Your task to perform on an android device: open device folders in google photos Image 0: 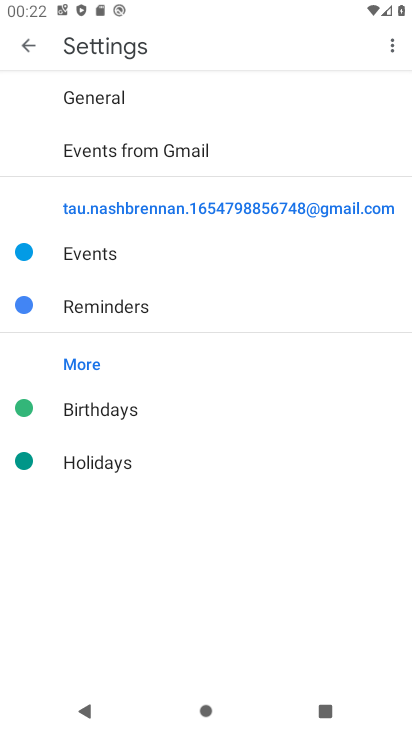
Step 0: press back button
Your task to perform on an android device: open device folders in google photos Image 1: 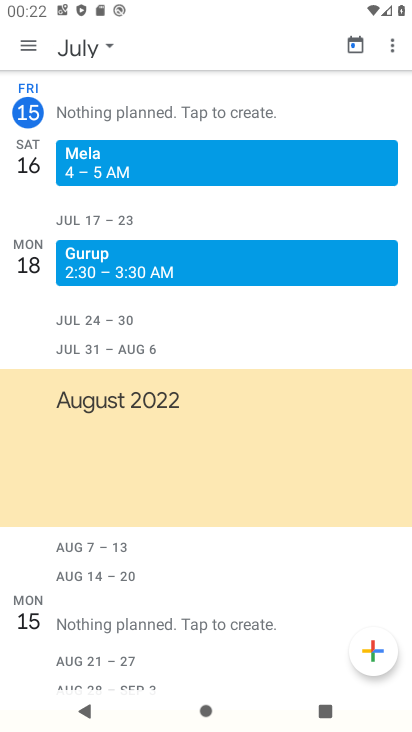
Step 1: press back button
Your task to perform on an android device: open device folders in google photos Image 2: 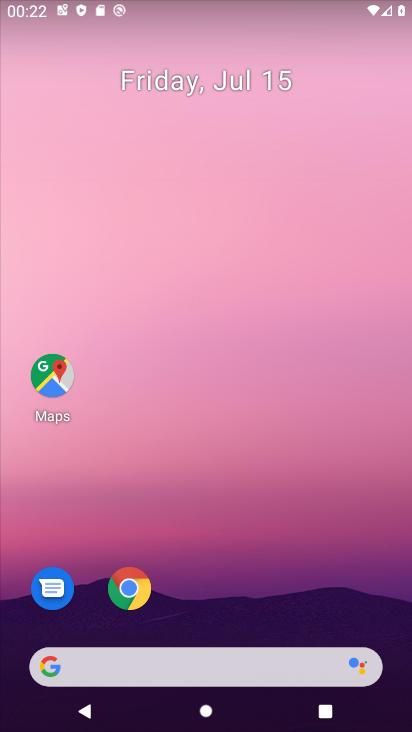
Step 2: drag from (198, 562) to (254, 28)
Your task to perform on an android device: open device folders in google photos Image 3: 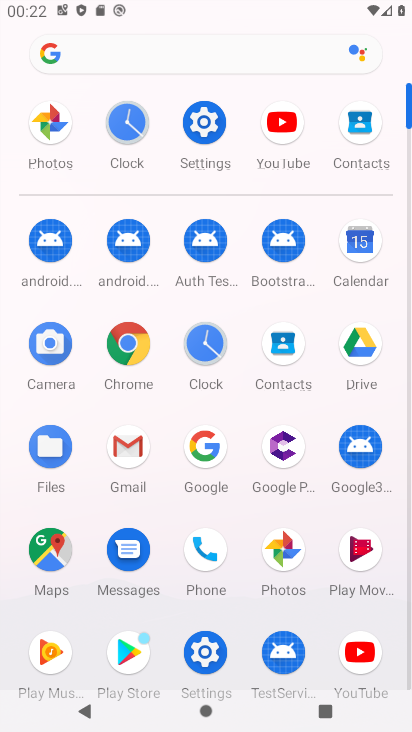
Step 3: click (288, 550)
Your task to perform on an android device: open device folders in google photos Image 4: 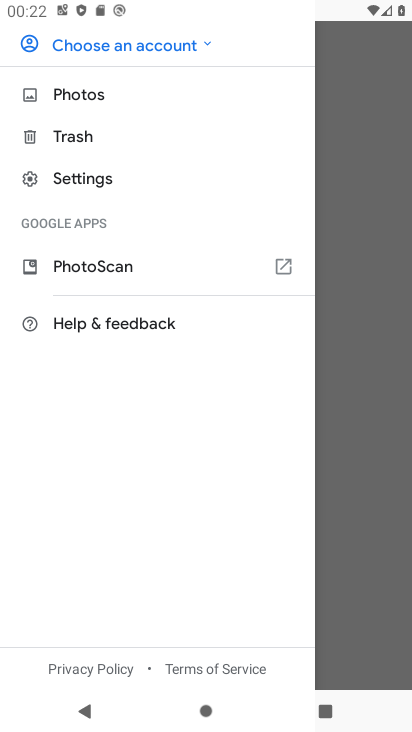
Step 4: task complete